Your task to perform on an android device: turn off notifications settings in the gmail app Image 0: 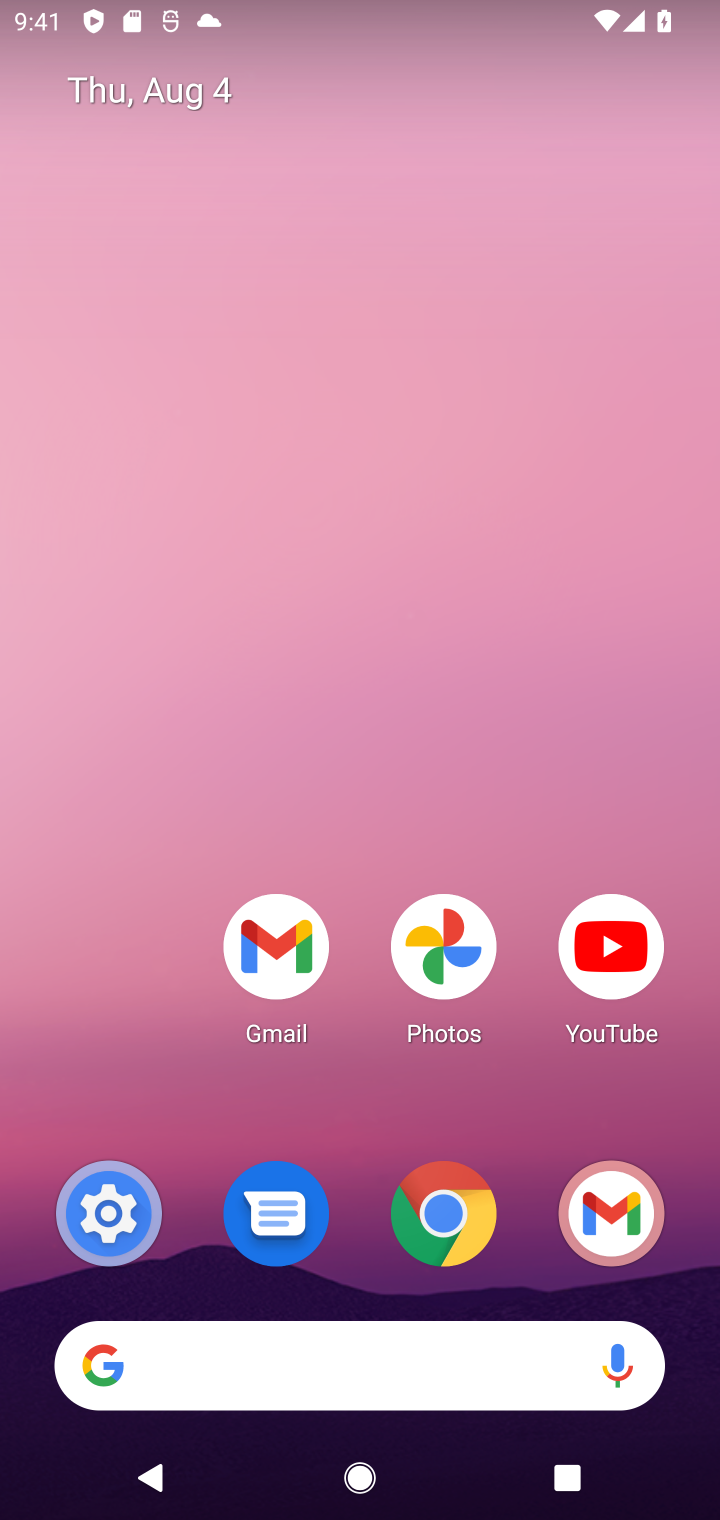
Step 0: press home button
Your task to perform on an android device: turn off notifications settings in the gmail app Image 1: 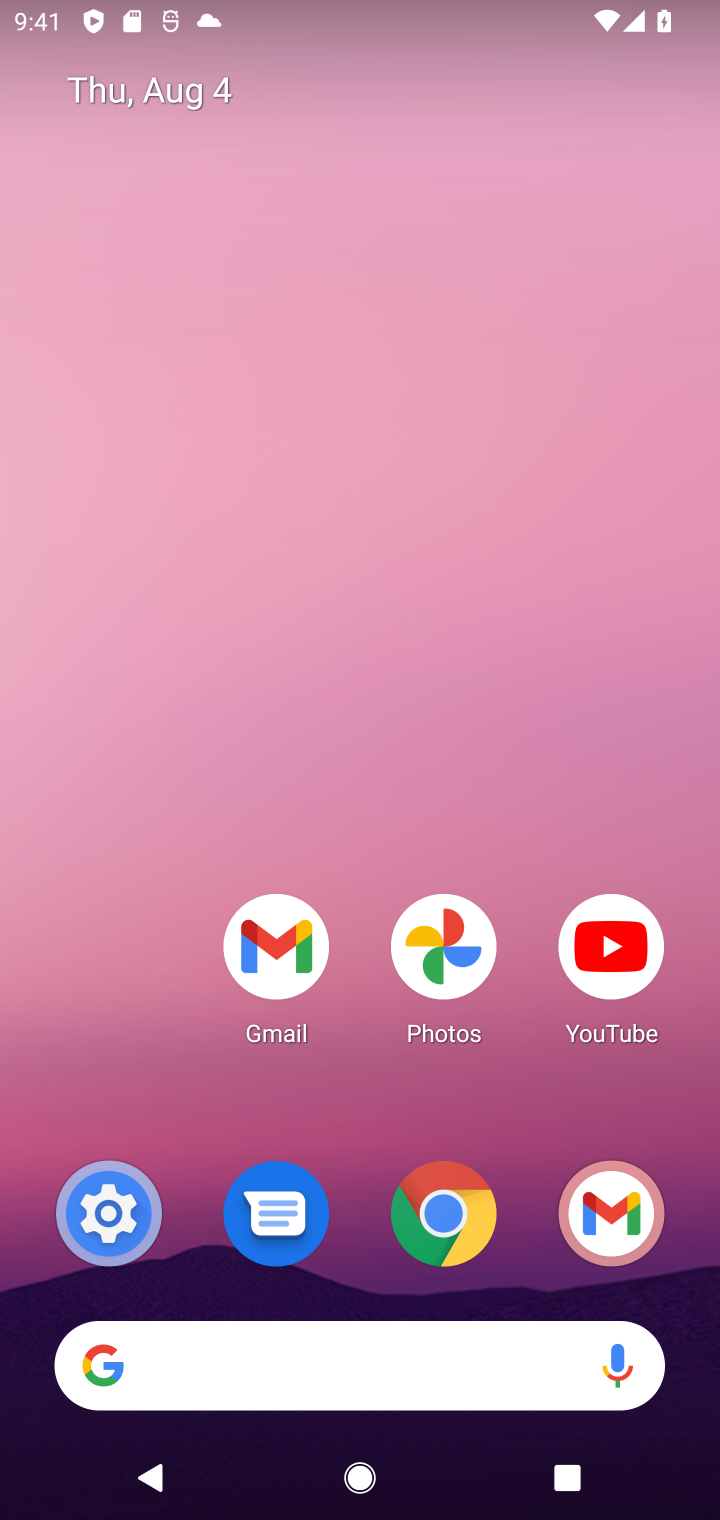
Step 1: click (280, 940)
Your task to perform on an android device: turn off notifications settings in the gmail app Image 2: 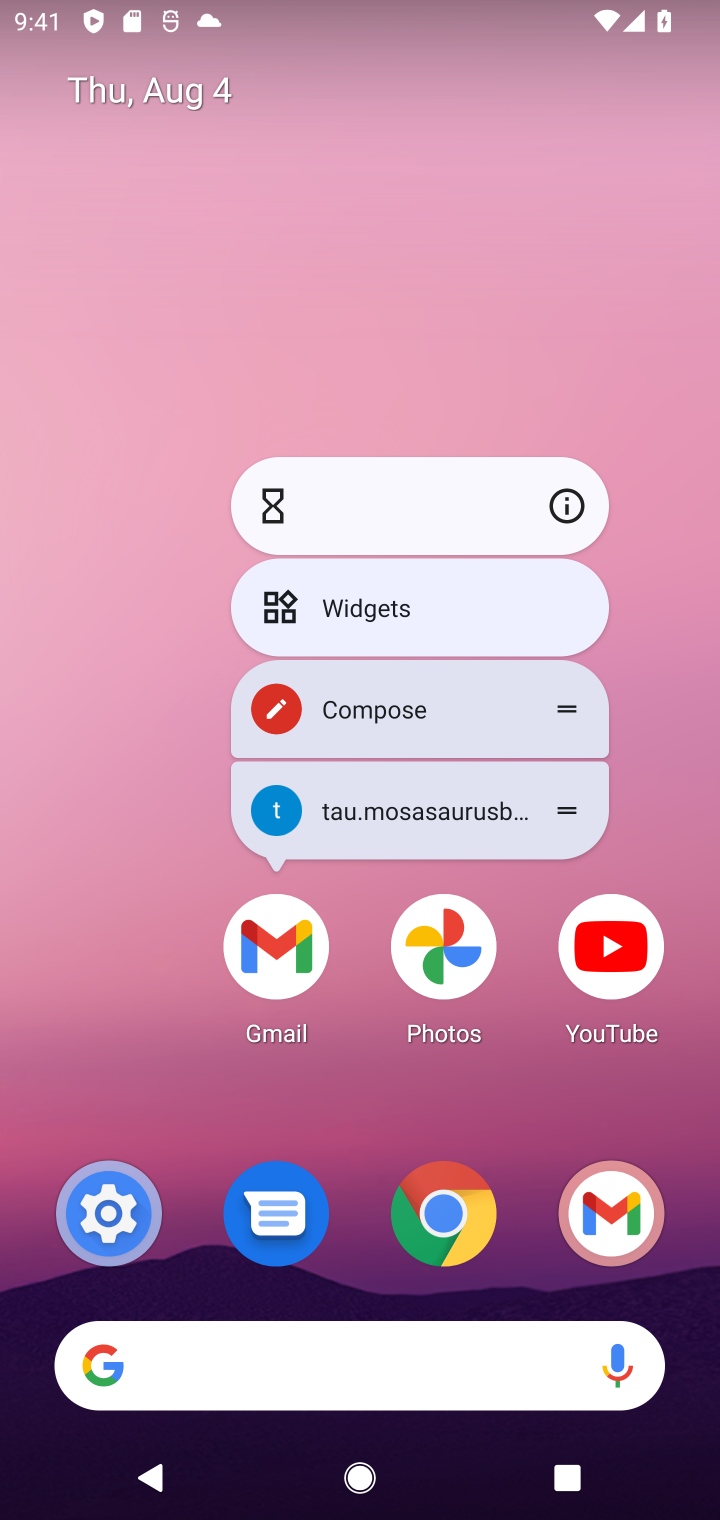
Step 2: click (91, 1066)
Your task to perform on an android device: turn off notifications settings in the gmail app Image 3: 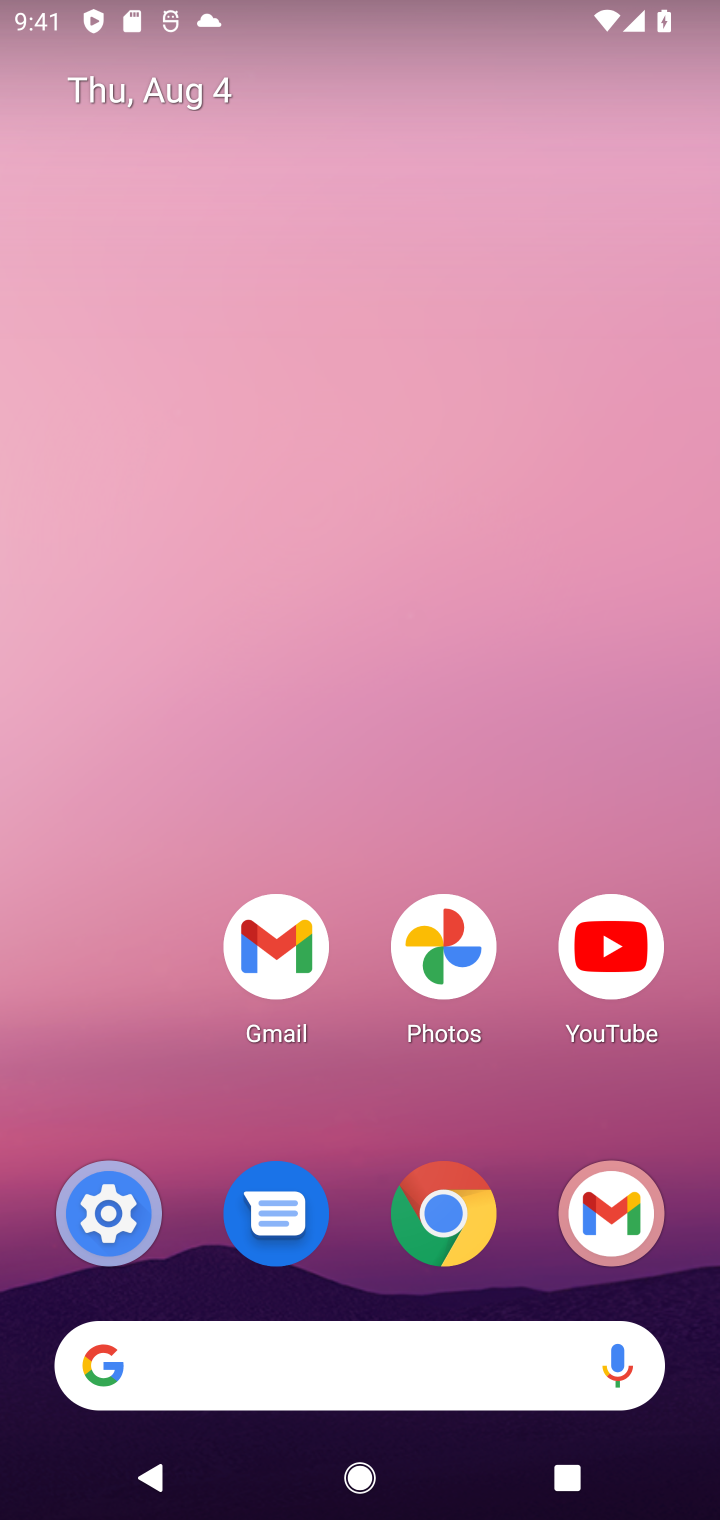
Step 3: click (615, 1204)
Your task to perform on an android device: turn off notifications settings in the gmail app Image 4: 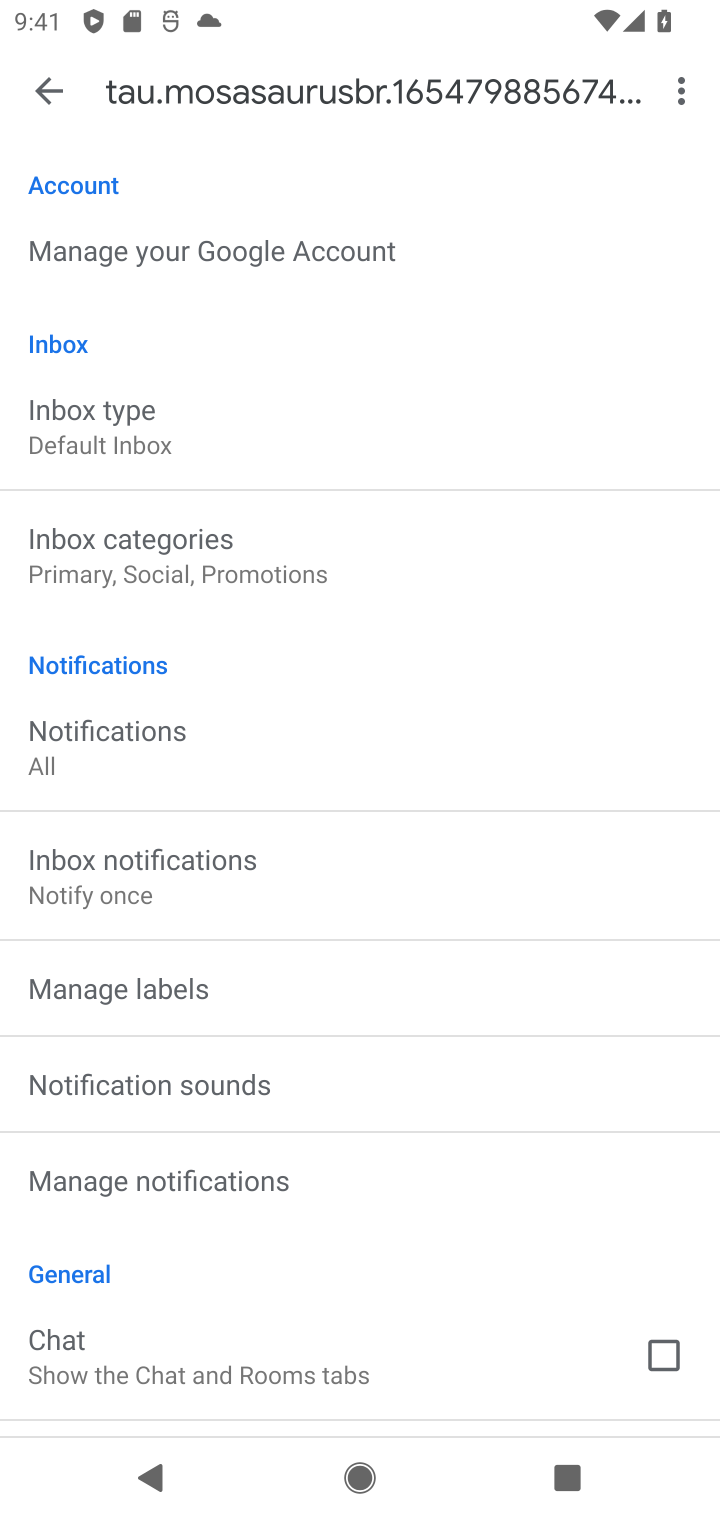
Step 4: click (42, 96)
Your task to perform on an android device: turn off notifications settings in the gmail app Image 5: 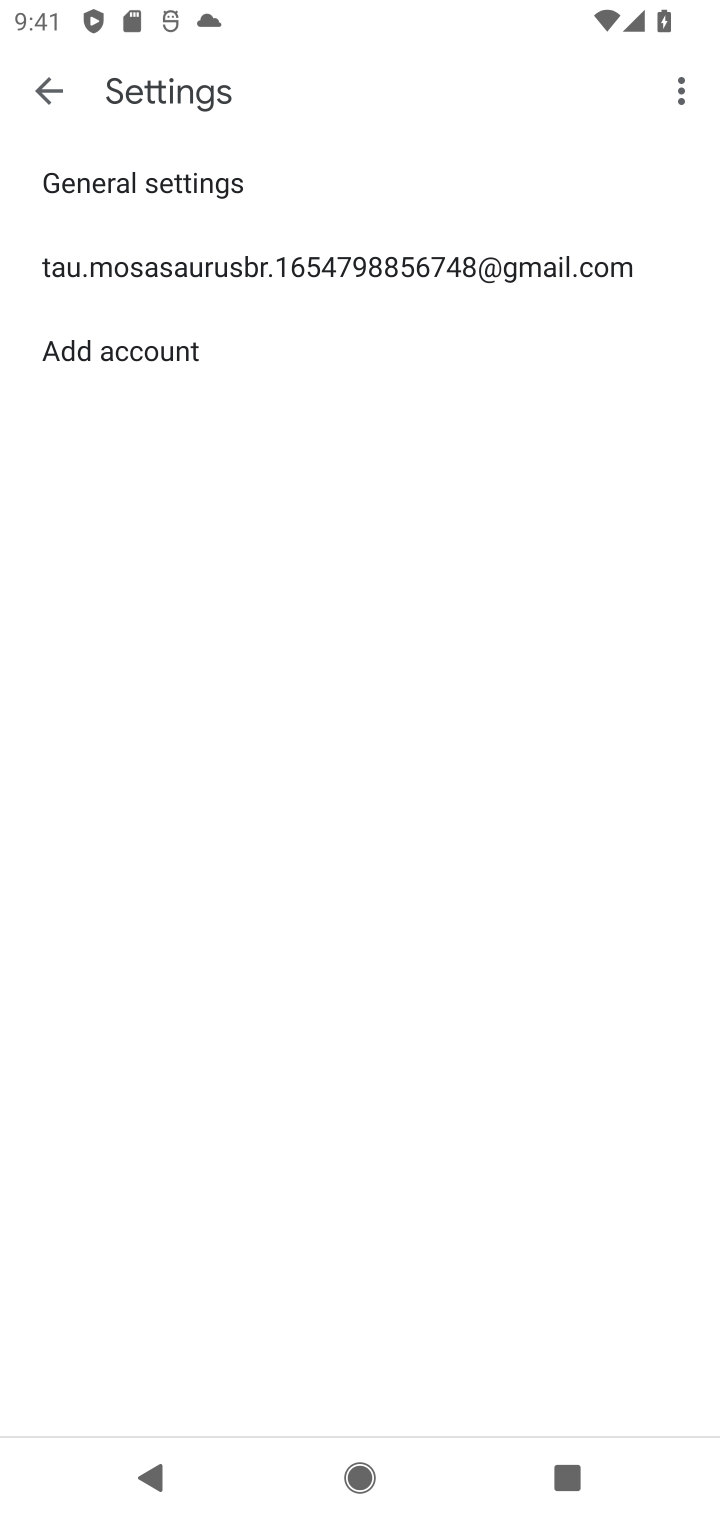
Step 5: click (220, 186)
Your task to perform on an android device: turn off notifications settings in the gmail app Image 6: 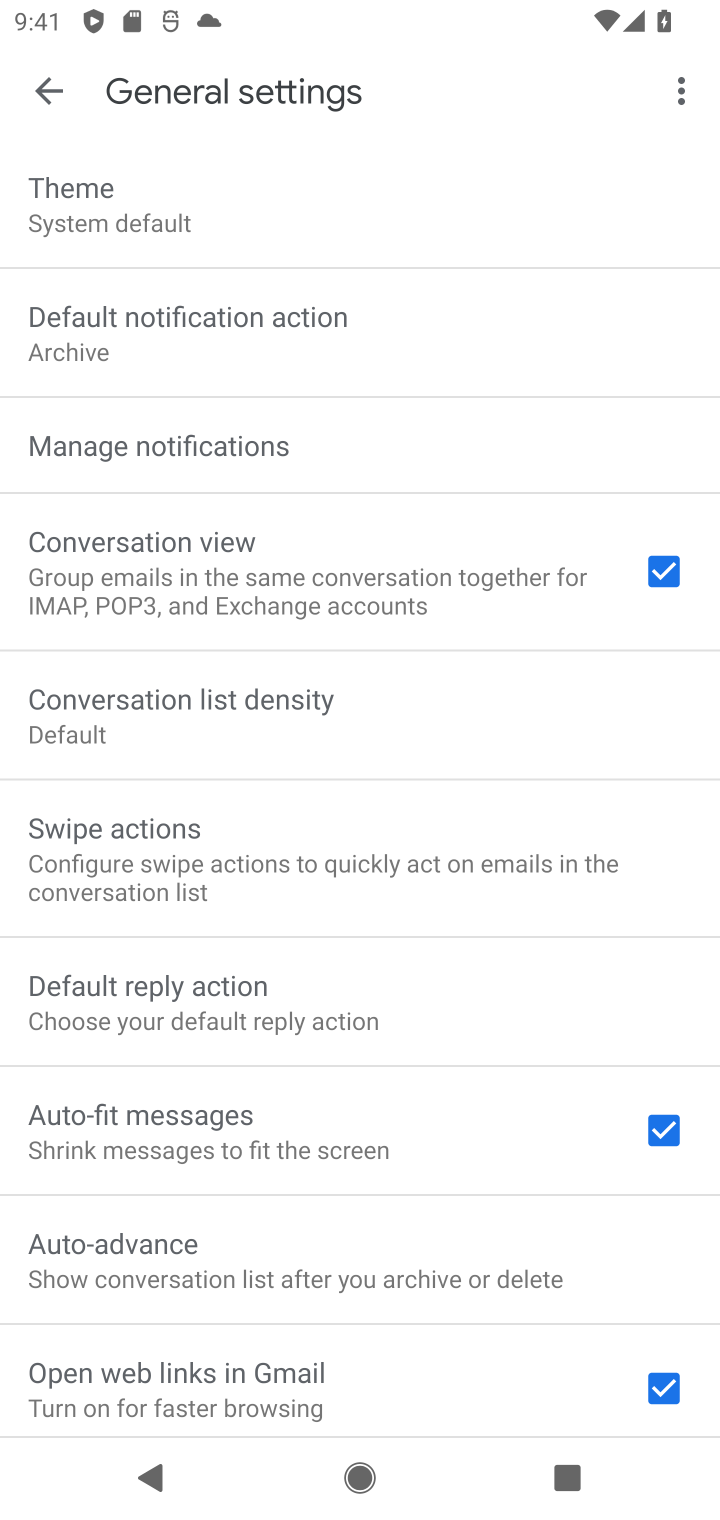
Step 6: drag from (198, 334) to (242, 1055)
Your task to perform on an android device: turn off notifications settings in the gmail app Image 7: 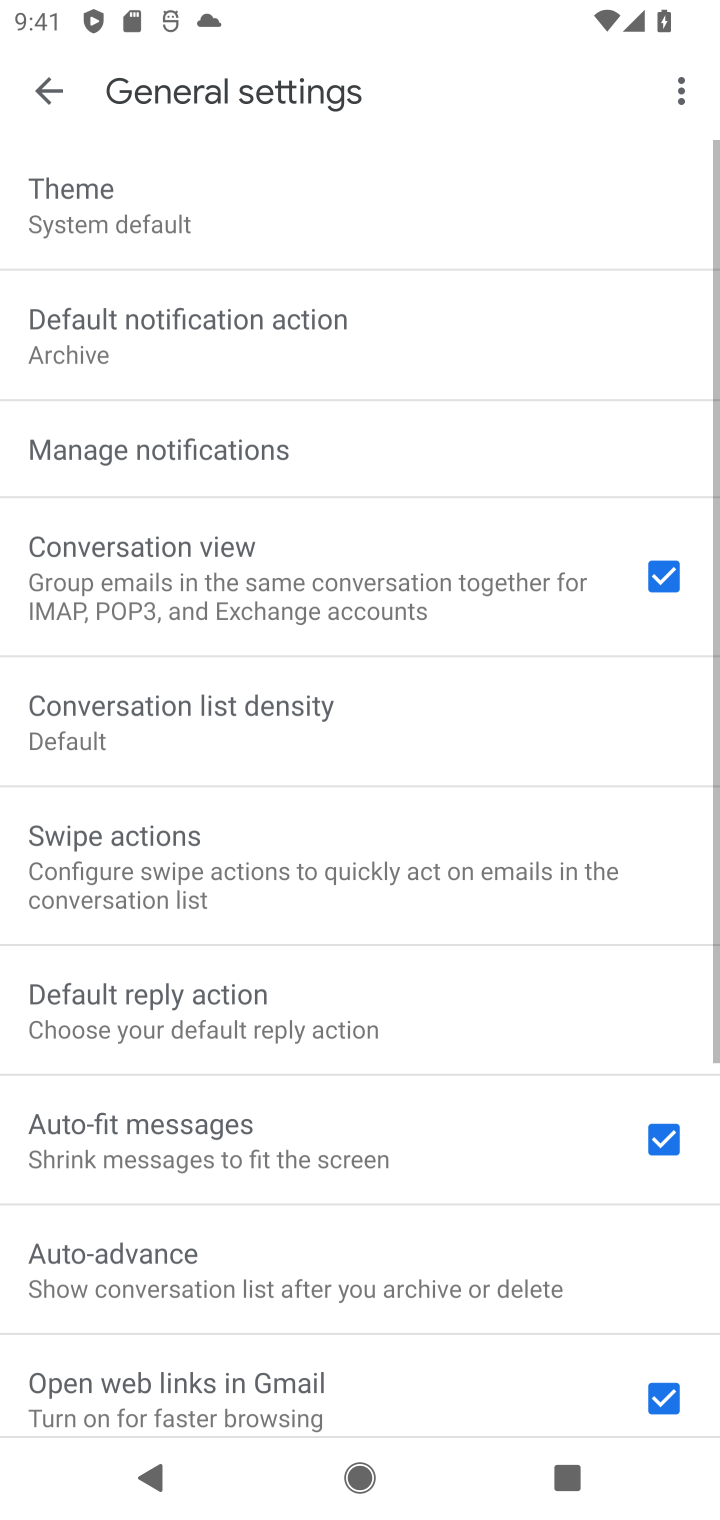
Step 7: click (244, 444)
Your task to perform on an android device: turn off notifications settings in the gmail app Image 8: 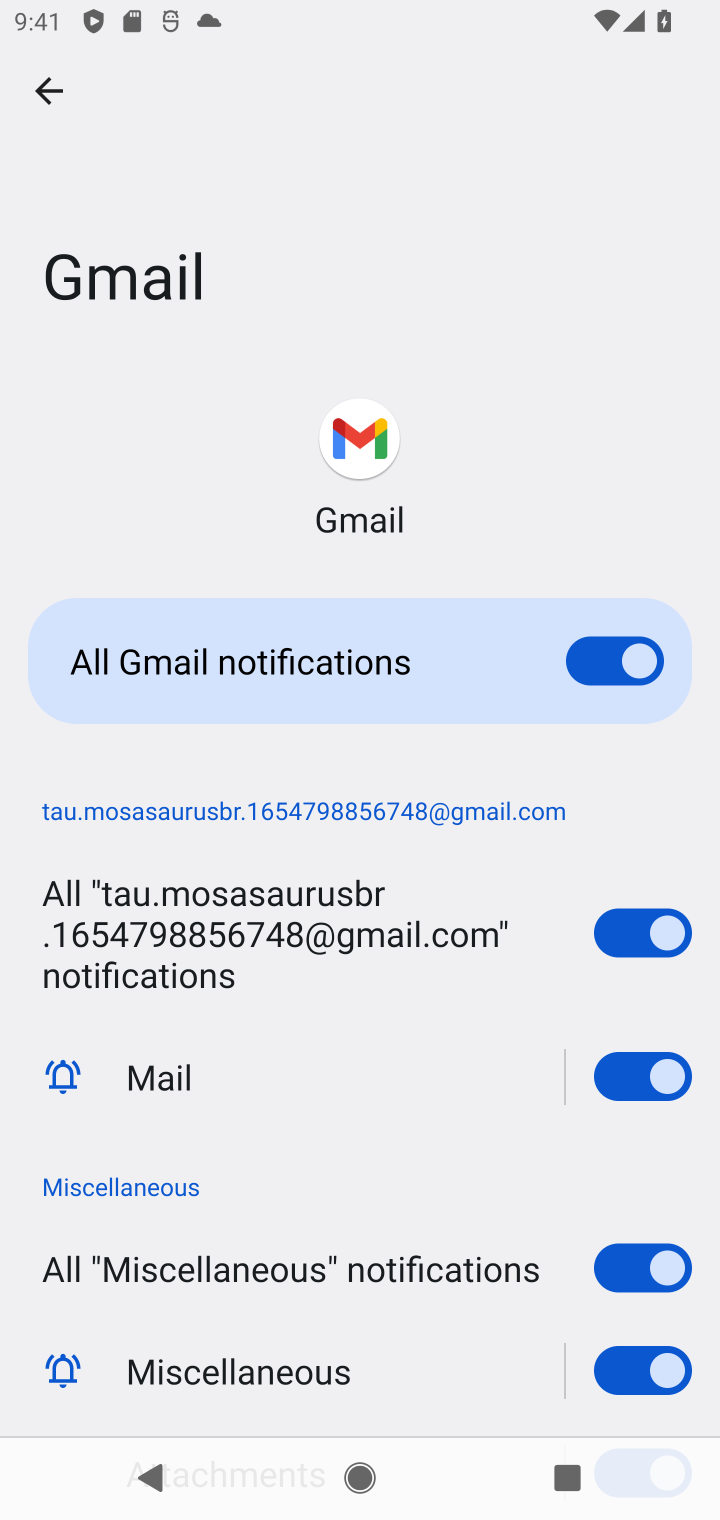
Step 8: click (608, 647)
Your task to perform on an android device: turn off notifications settings in the gmail app Image 9: 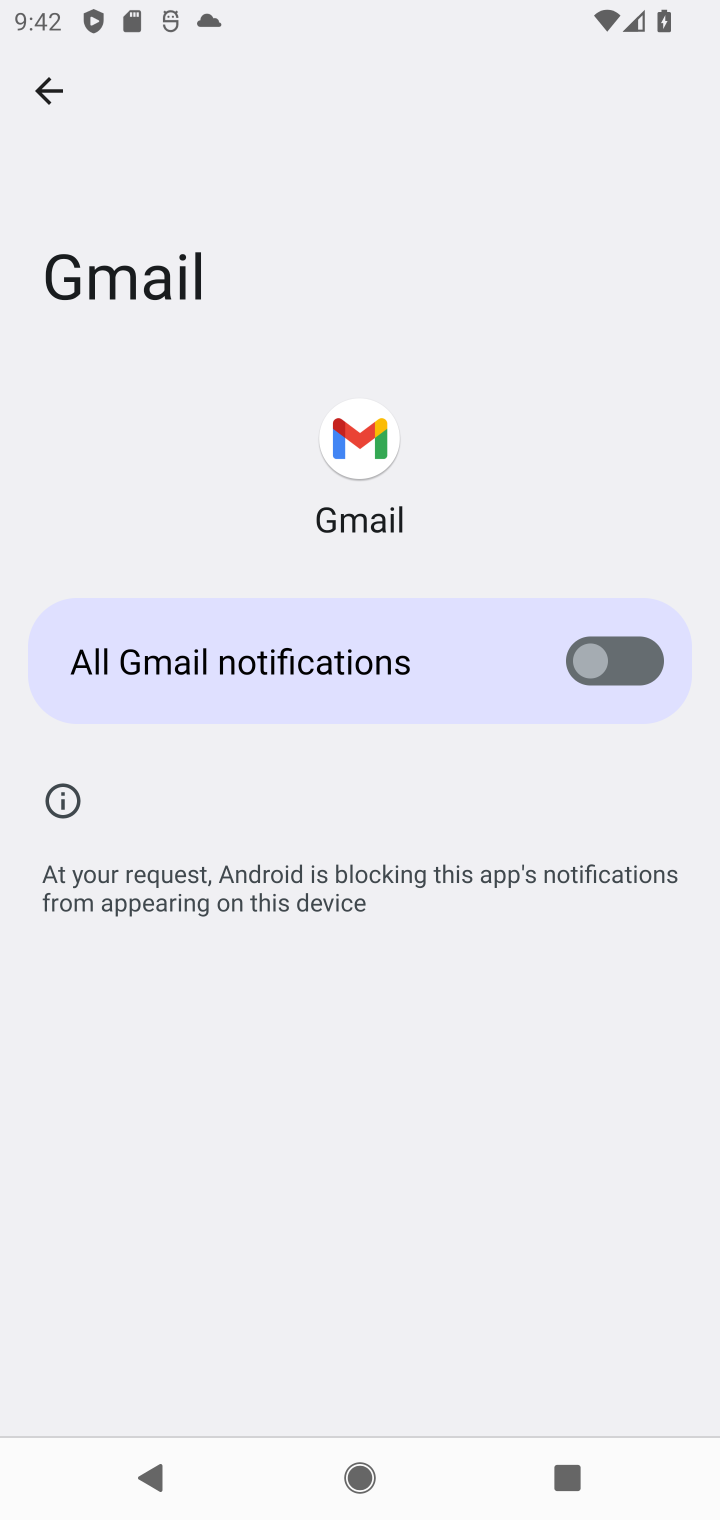
Step 9: task complete